Your task to perform on an android device: Go to Reddit.com Image 0: 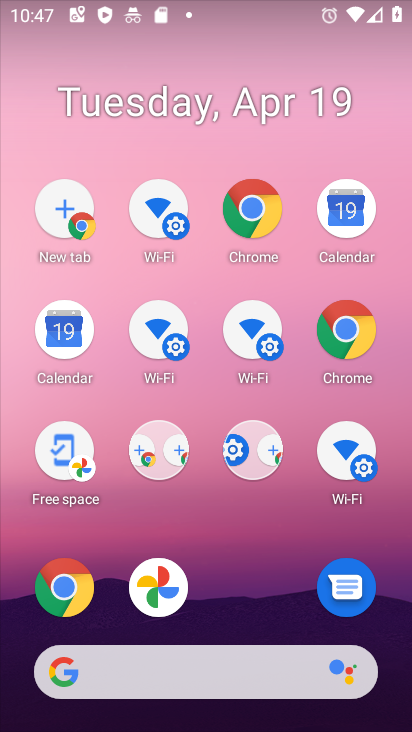
Step 0: click (80, 604)
Your task to perform on an android device: Go to Reddit.com Image 1: 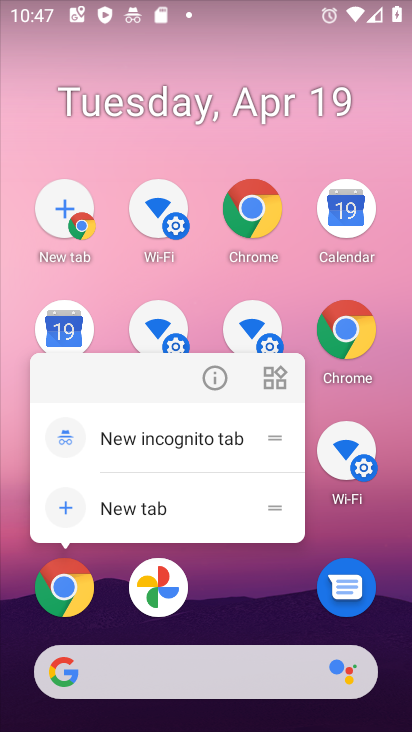
Step 1: click (71, 592)
Your task to perform on an android device: Go to Reddit.com Image 2: 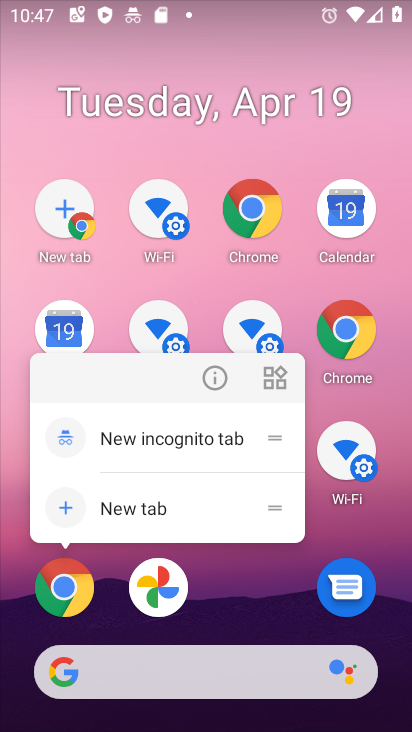
Step 2: click (58, 599)
Your task to perform on an android device: Go to Reddit.com Image 3: 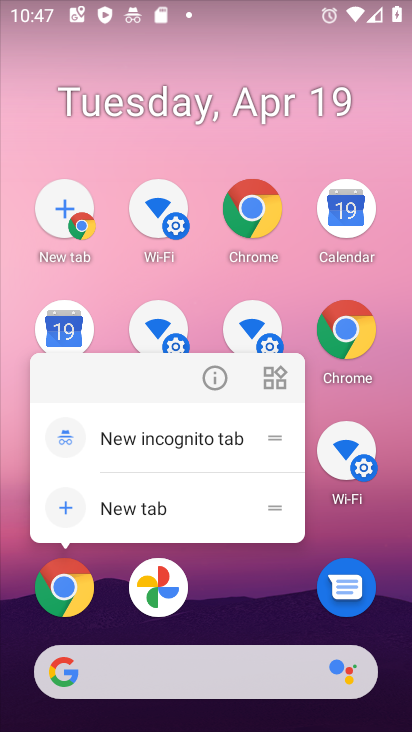
Step 3: click (59, 595)
Your task to perform on an android device: Go to Reddit.com Image 4: 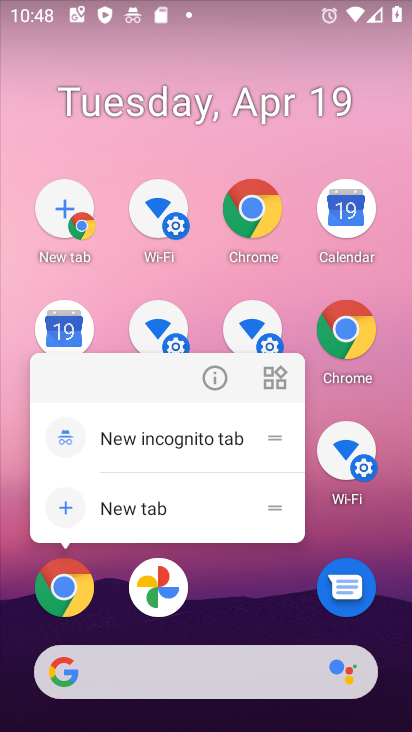
Step 4: click (113, 167)
Your task to perform on an android device: Go to Reddit.com Image 5: 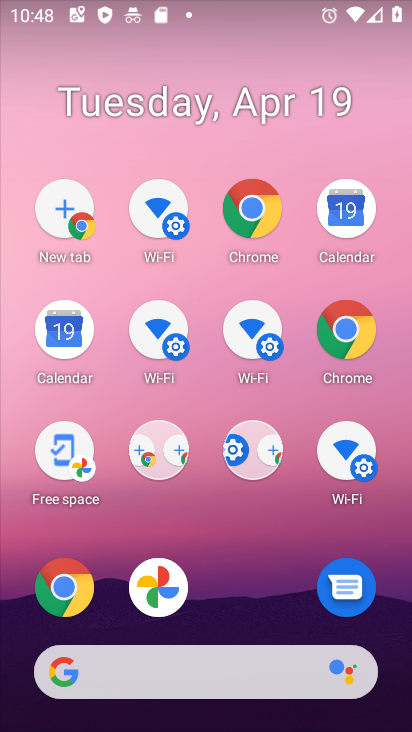
Step 5: click (113, 167)
Your task to perform on an android device: Go to Reddit.com Image 6: 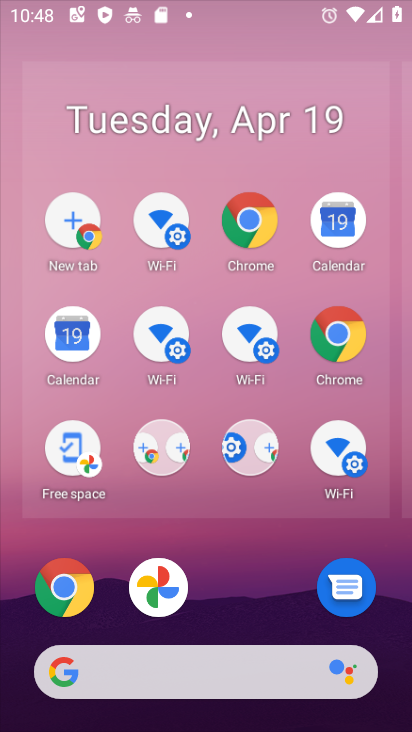
Step 6: drag from (68, 591) to (38, 612)
Your task to perform on an android device: Go to Reddit.com Image 7: 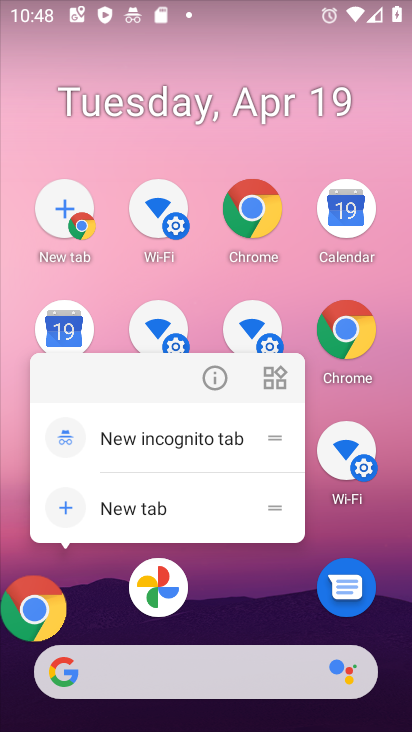
Step 7: click (66, 579)
Your task to perform on an android device: Go to Reddit.com Image 8: 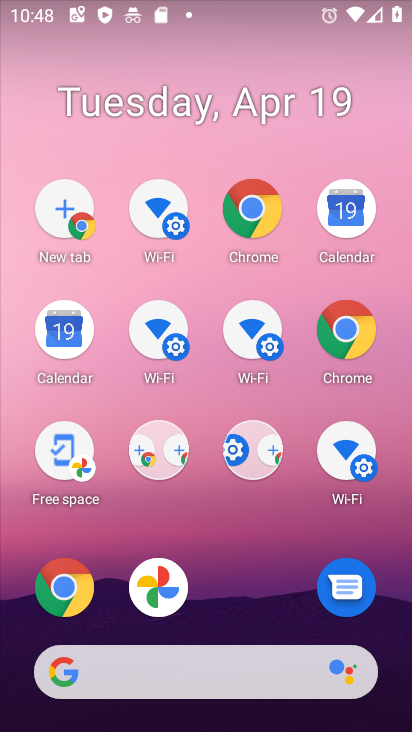
Step 8: click (66, 579)
Your task to perform on an android device: Go to Reddit.com Image 9: 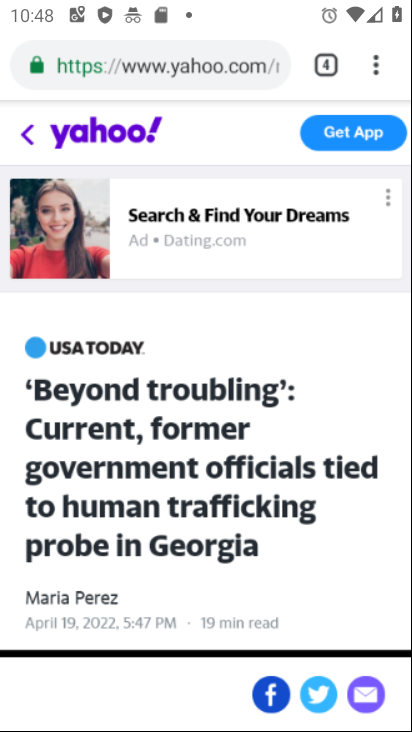
Step 9: click (66, 579)
Your task to perform on an android device: Go to Reddit.com Image 10: 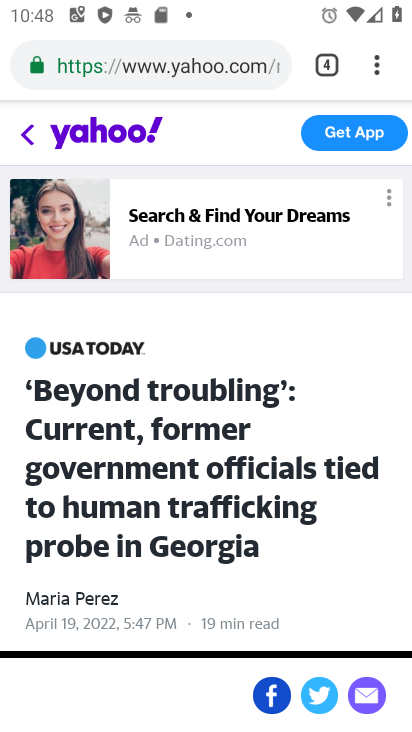
Step 10: press home button
Your task to perform on an android device: Go to Reddit.com Image 11: 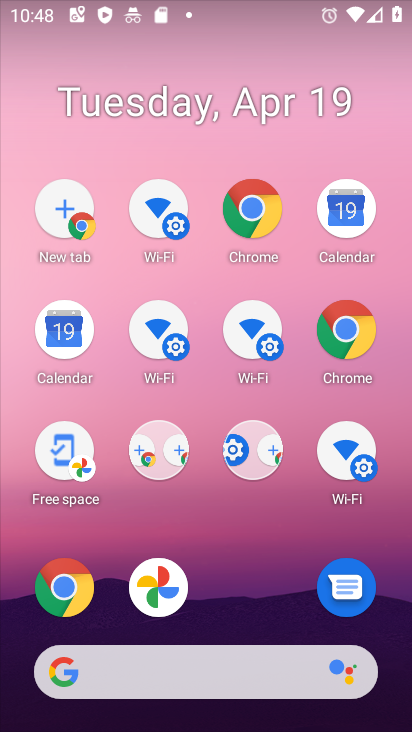
Step 11: click (67, 579)
Your task to perform on an android device: Go to Reddit.com Image 12: 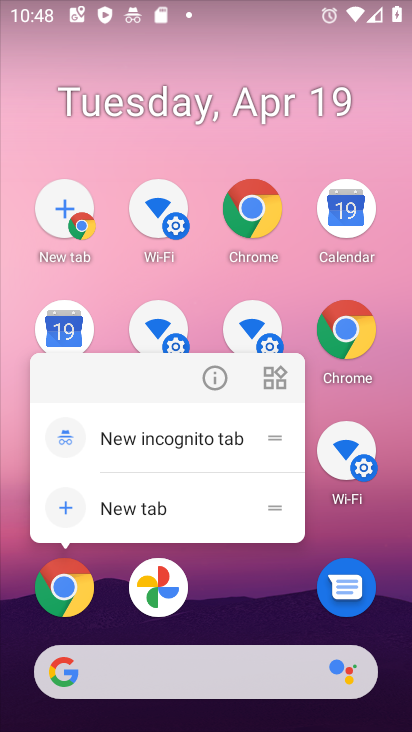
Step 12: click (55, 588)
Your task to perform on an android device: Go to Reddit.com Image 13: 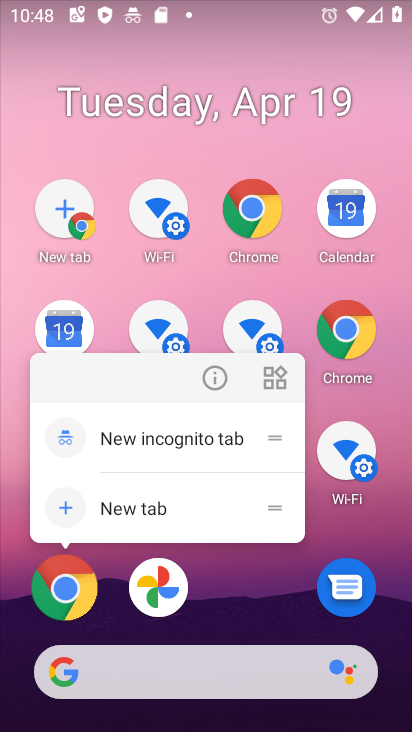
Step 13: click (55, 588)
Your task to perform on an android device: Go to Reddit.com Image 14: 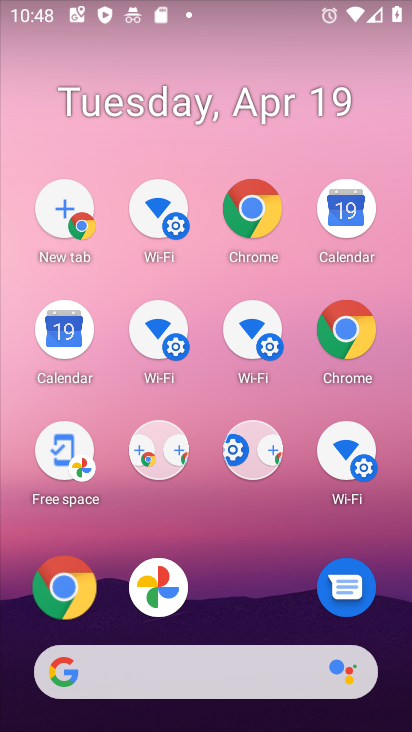
Step 14: click (55, 588)
Your task to perform on an android device: Go to Reddit.com Image 15: 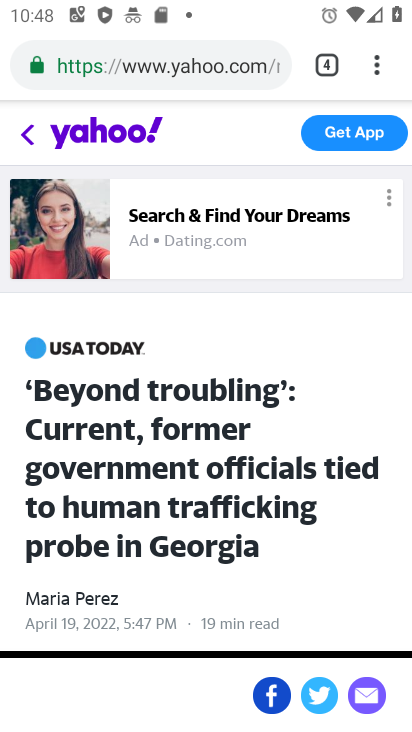
Step 15: press home button
Your task to perform on an android device: Go to Reddit.com Image 16: 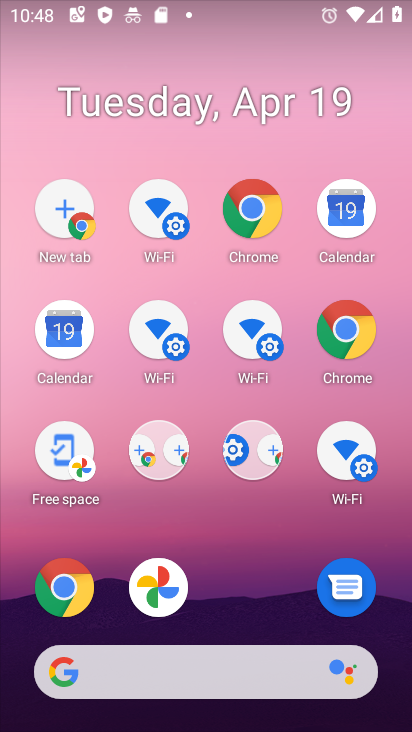
Step 16: click (63, 588)
Your task to perform on an android device: Go to Reddit.com Image 17: 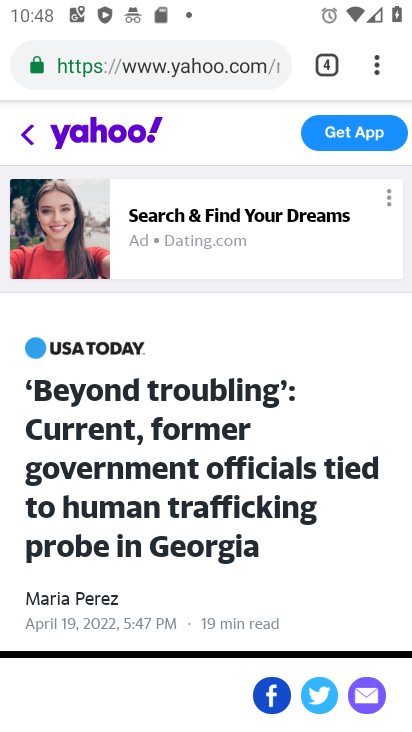
Step 17: press back button
Your task to perform on an android device: Go to Reddit.com Image 18: 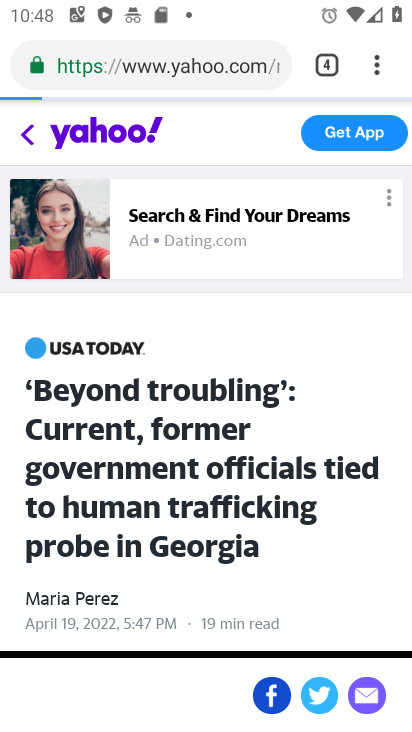
Step 18: press back button
Your task to perform on an android device: Go to Reddit.com Image 19: 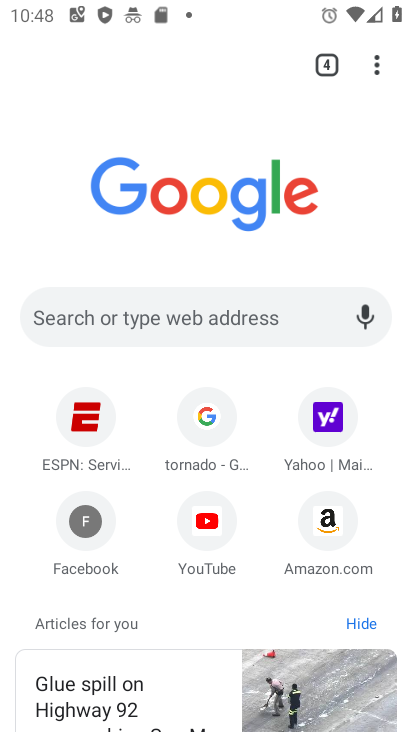
Step 19: click (71, 322)
Your task to perform on an android device: Go to Reddit.com Image 20: 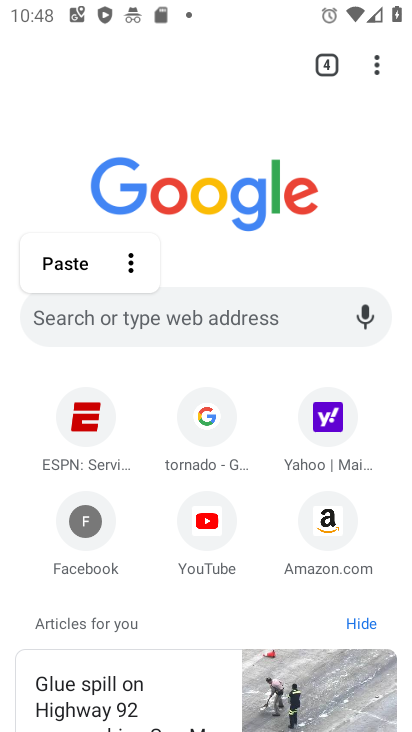
Step 20: type "www.reddit.com"
Your task to perform on an android device: Go to Reddit.com Image 21: 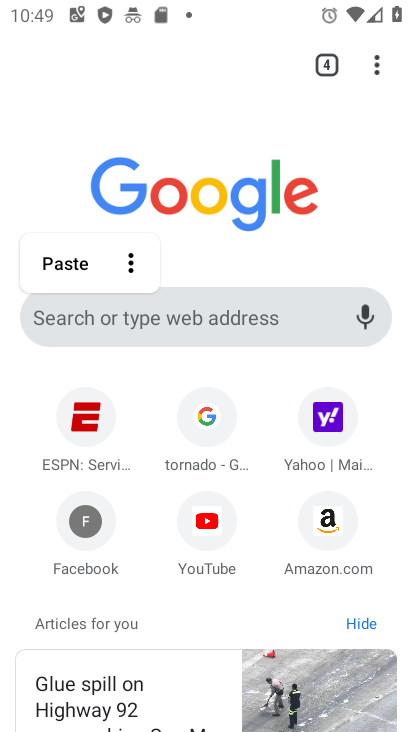
Step 21: click (148, 324)
Your task to perform on an android device: Go to Reddit.com Image 22: 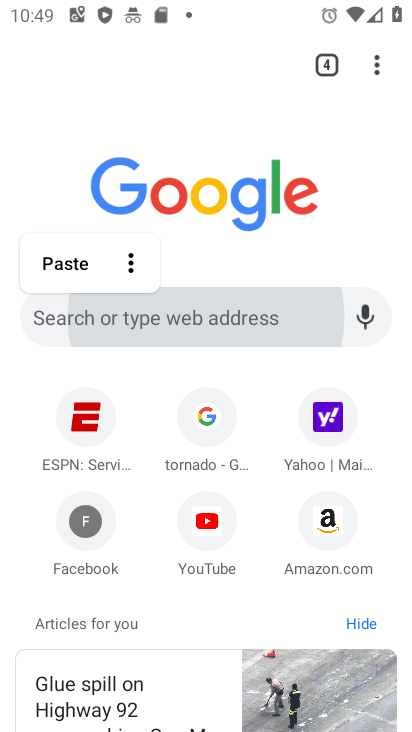
Step 22: click (148, 324)
Your task to perform on an android device: Go to Reddit.com Image 23: 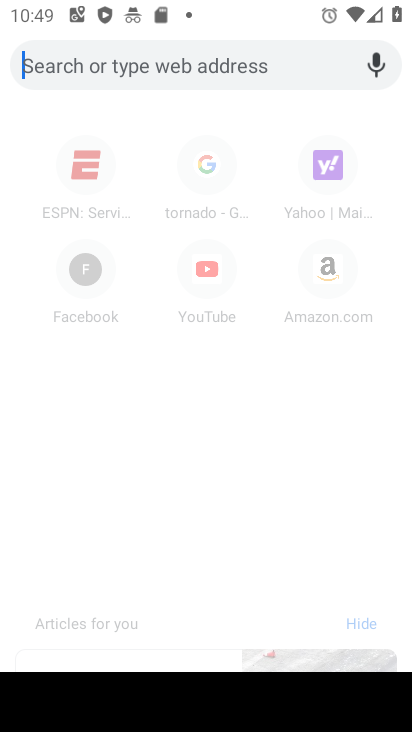
Step 23: type "www.reddit.com"
Your task to perform on an android device: Go to Reddit.com Image 24: 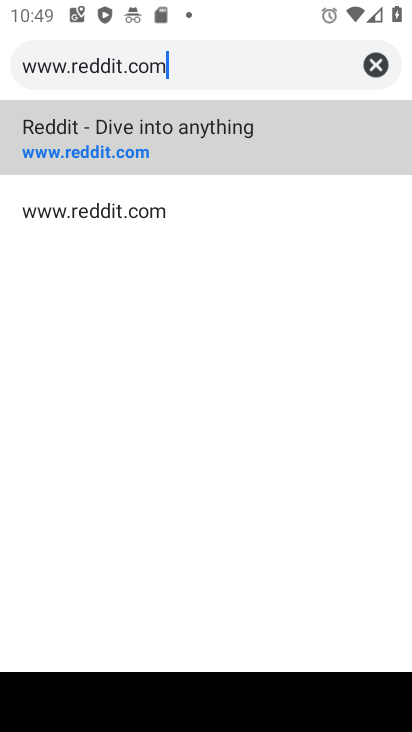
Step 24: click (102, 148)
Your task to perform on an android device: Go to Reddit.com Image 25: 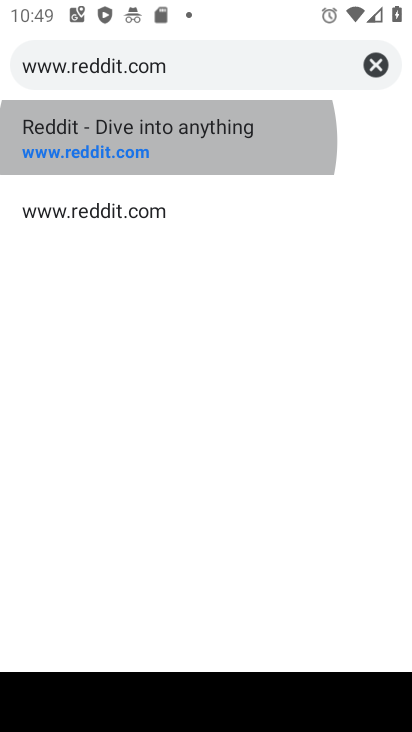
Step 25: click (102, 148)
Your task to perform on an android device: Go to Reddit.com Image 26: 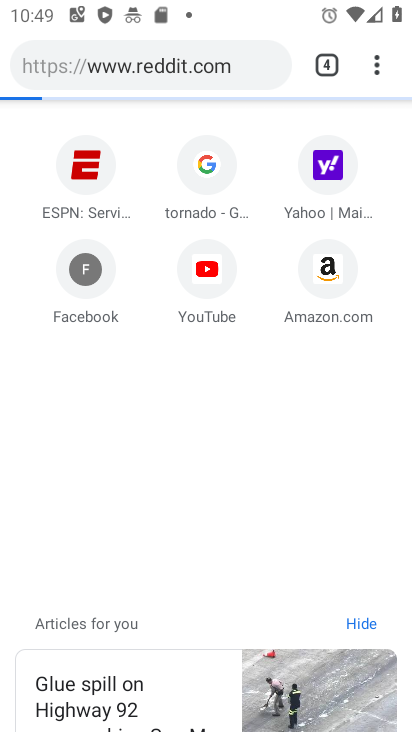
Step 26: click (101, 149)
Your task to perform on an android device: Go to Reddit.com Image 27: 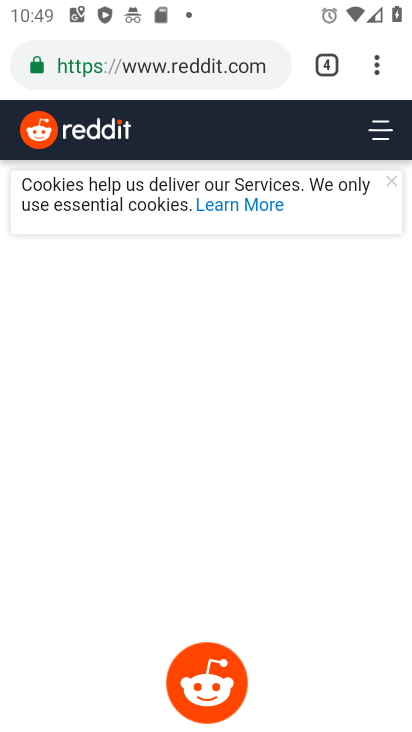
Step 27: task complete